Your task to perform on an android device: Open network settings Image 0: 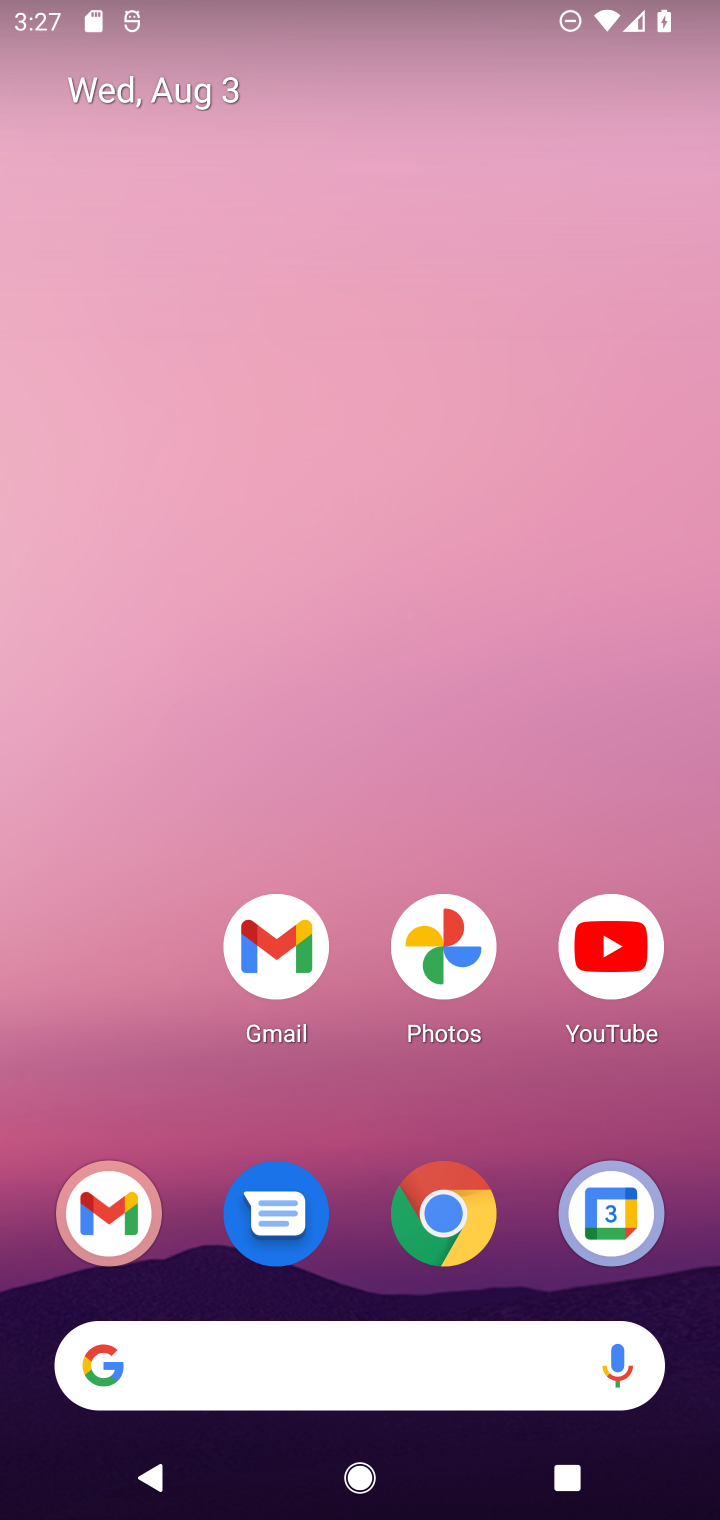
Step 0: drag from (395, 1129) to (359, 526)
Your task to perform on an android device: Open network settings Image 1: 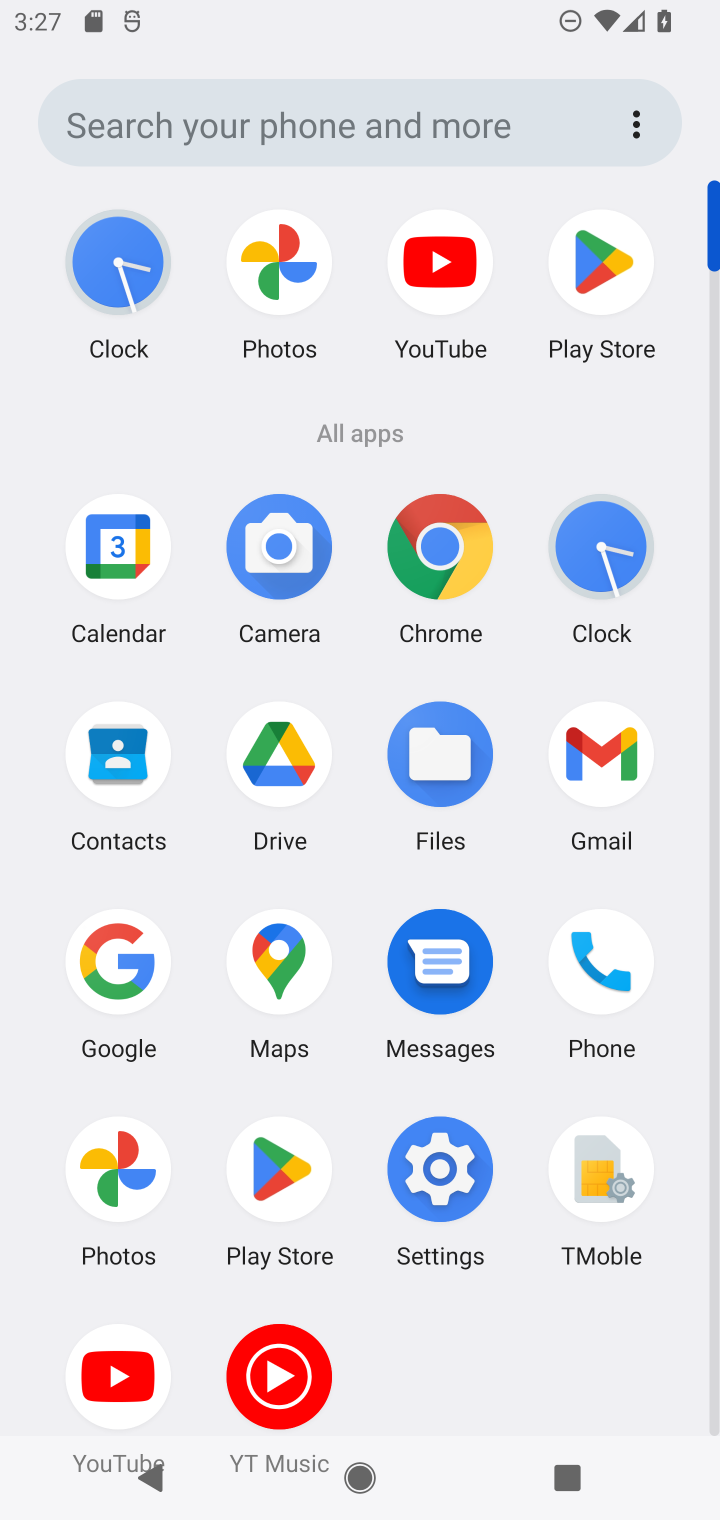
Step 1: click (439, 1160)
Your task to perform on an android device: Open network settings Image 2: 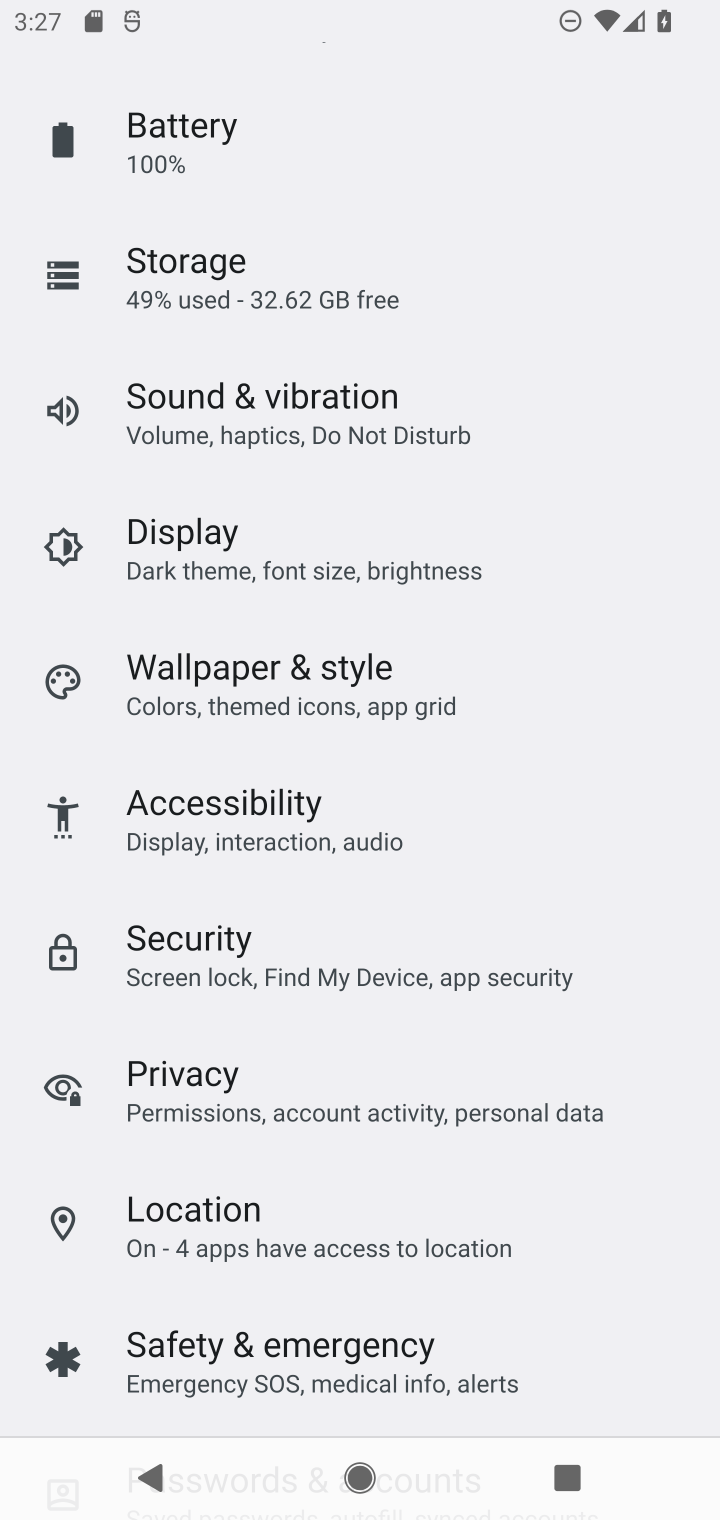
Step 2: drag from (279, 199) to (240, 1161)
Your task to perform on an android device: Open network settings Image 3: 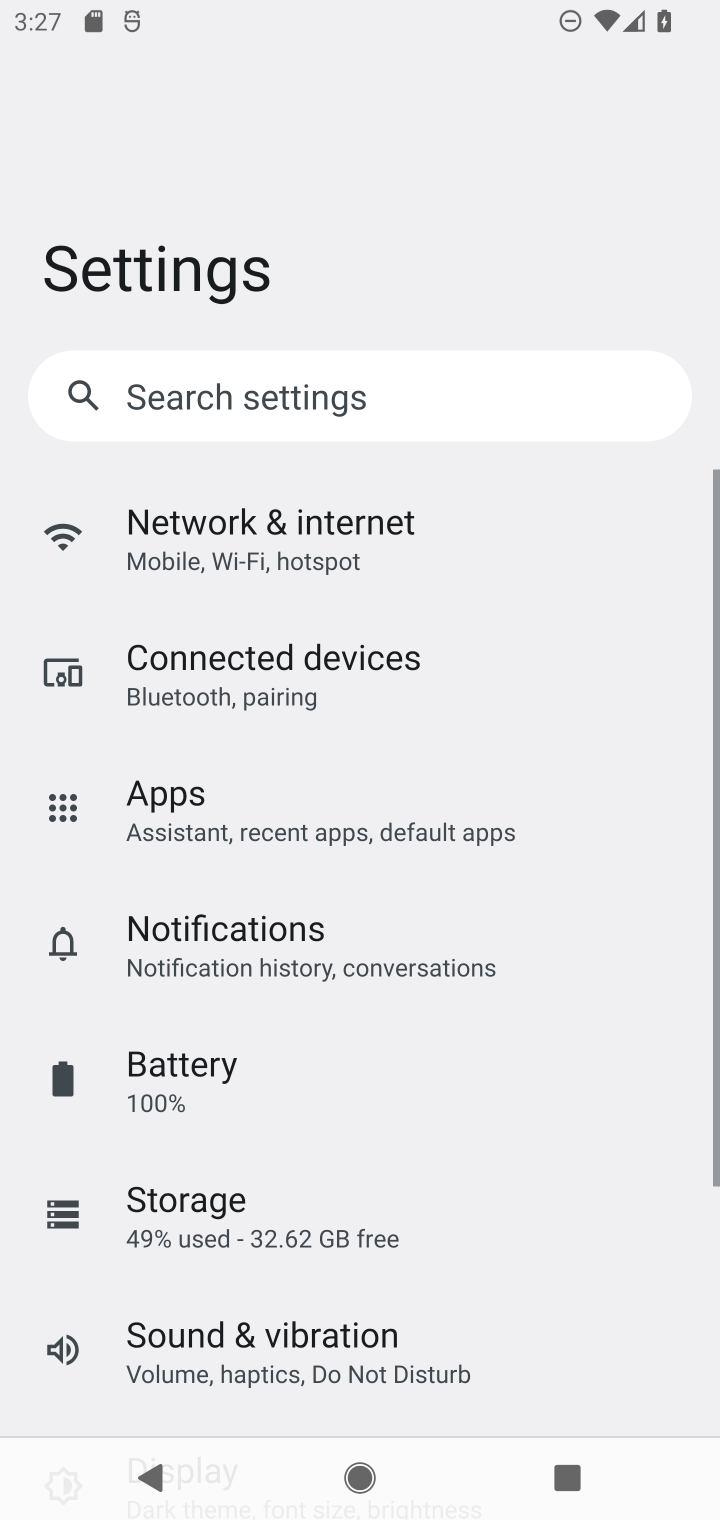
Step 3: drag from (314, 201) to (340, 1142)
Your task to perform on an android device: Open network settings Image 4: 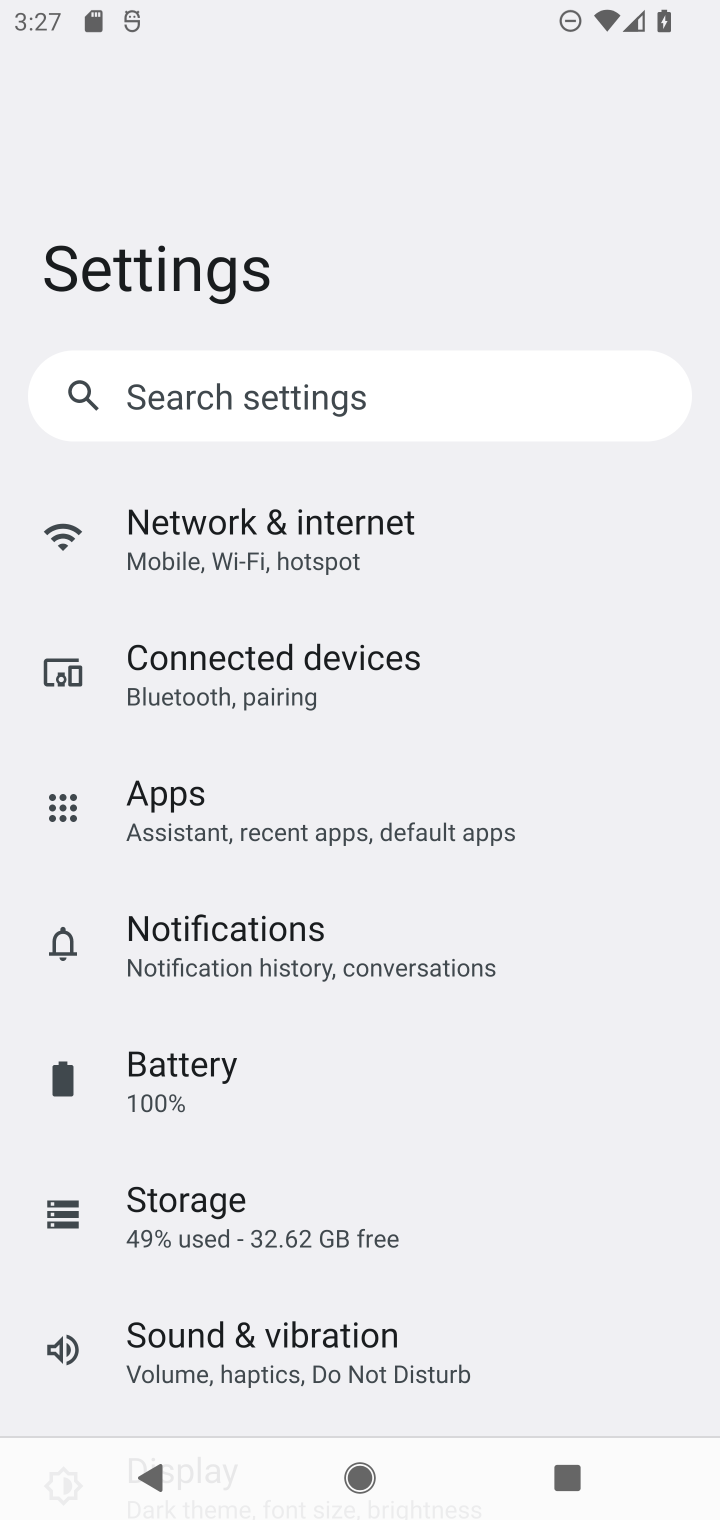
Step 4: click (303, 516)
Your task to perform on an android device: Open network settings Image 5: 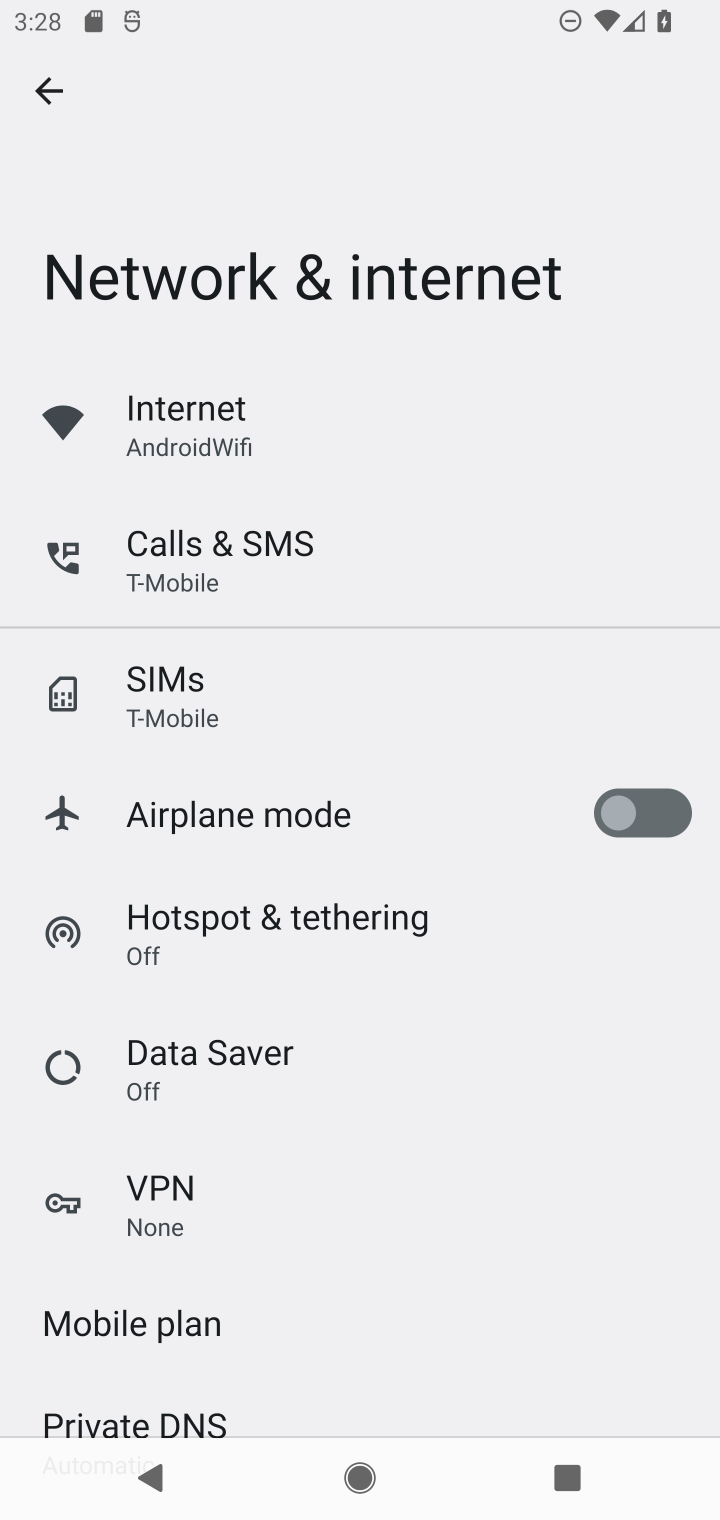
Step 5: task complete